Your task to perform on an android device: change the clock display to show seconds Image 0: 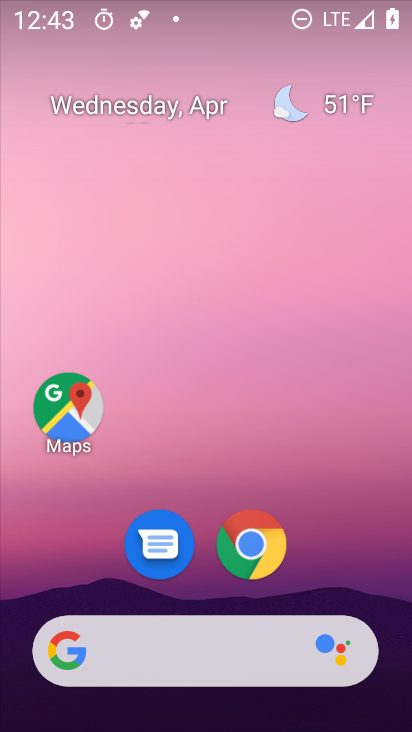
Step 0: drag from (371, 578) to (391, 156)
Your task to perform on an android device: change the clock display to show seconds Image 1: 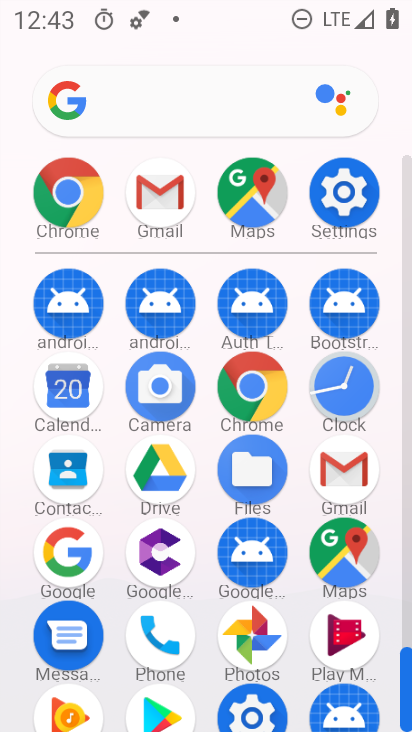
Step 1: click (328, 394)
Your task to perform on an android device: change the clock display to show seconds Image 2: 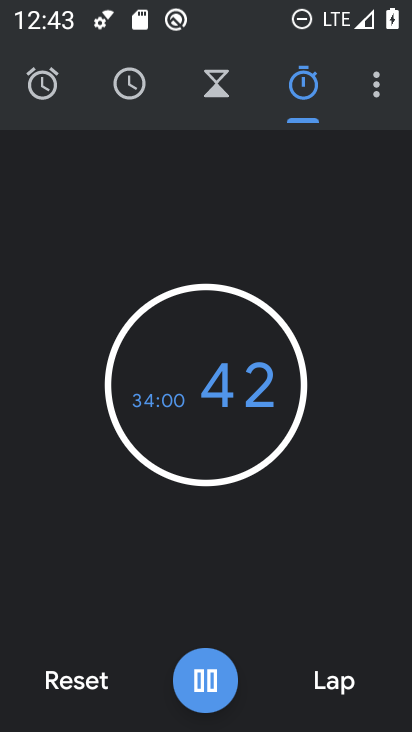
Step 2: click (382, 91)
Your task to perform on an android device: change the clock display to show seconds Image 3: 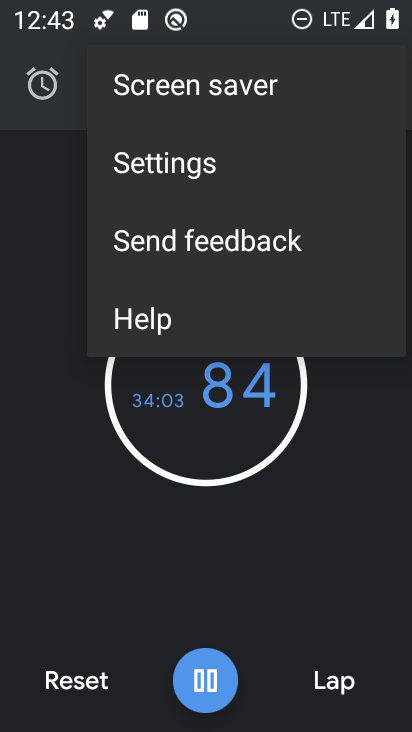
Step 3: click (203, 176)
Your task to perform on an android device: change the clock display to show seconds Image 4: 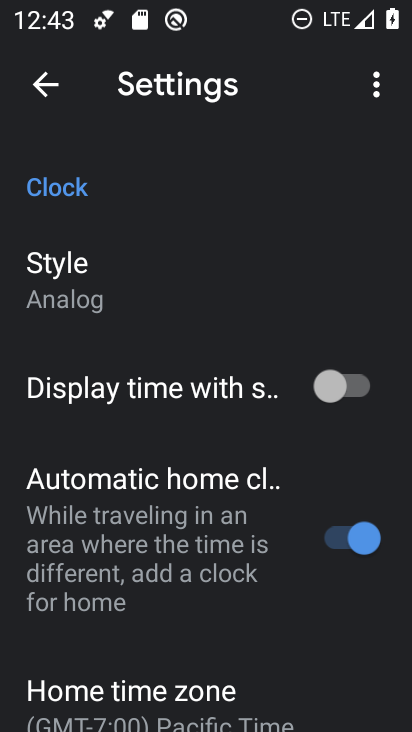
Step 4: drag from (295, 616) to (300, 423)
Your task to perform on an android device: change the clock display to show seconds Image 5: 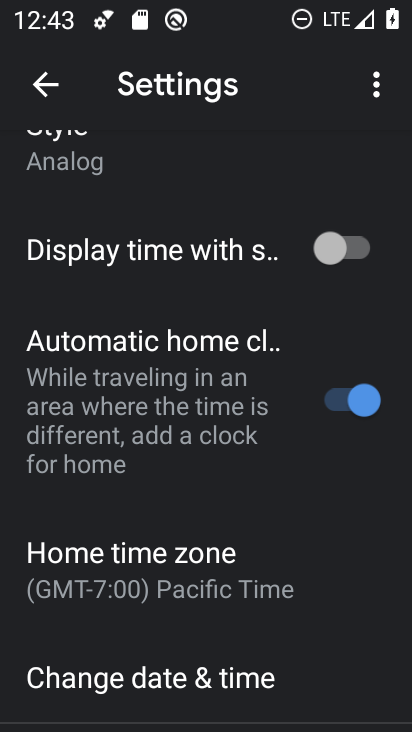
Step 5: drag from (325, 639) to (315, 470)
Your task to perform on an android device: change the clock display to show seconds Image 6: 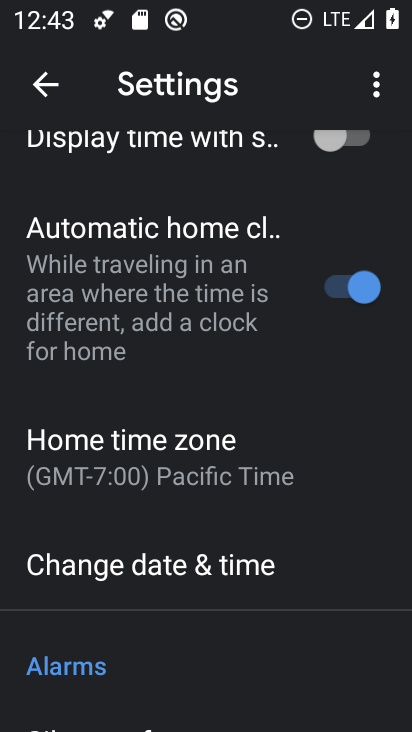
Step 6: drag from (337, 634) to (335, 482)
Your task to perform on an android device: change the clock display to show seconds Image 7: 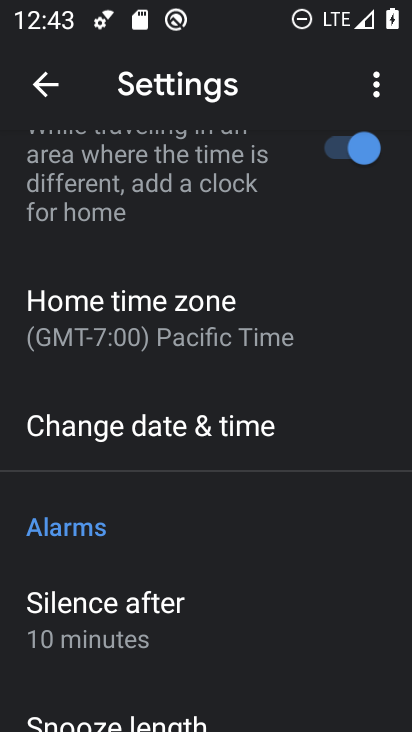
Step 7: drag from (334, 618) to (354, 497)
Your task to perform on an android device: change the clock display to show seconds Image 8: 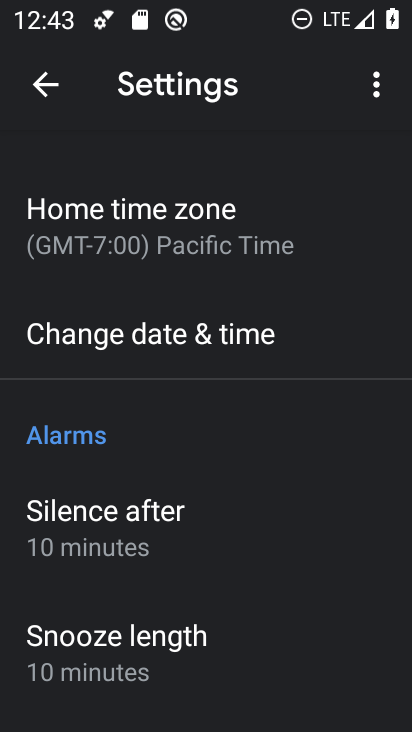
Step 8: drag from (338, 633) to (342, 519)
Your task to perform on an android device: change the clock display to show seconds Image 9: 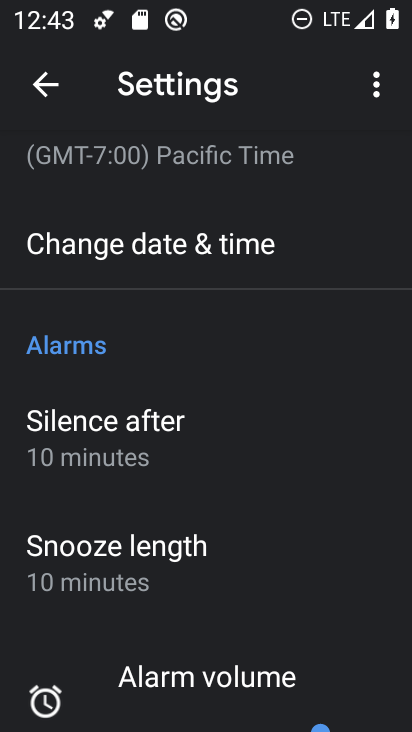
Step 9: drag from (339, 658) to (351, 520)
Your task to perform on an android device: change the clock display to show seconds Image 10: 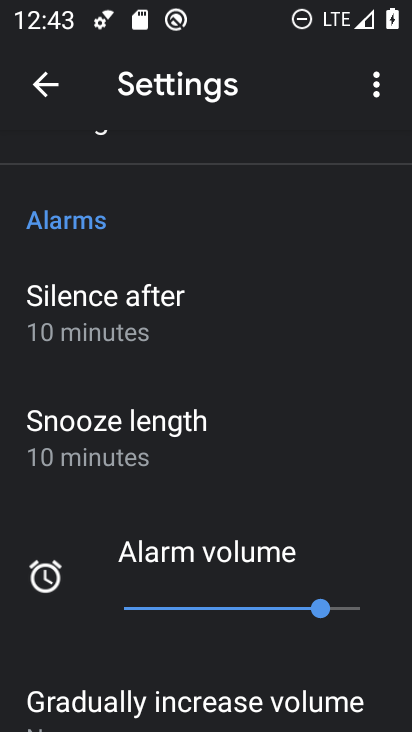
Step 10: drag from (371, 652) to (373, 503)
Your task to perform on an android device: change the clock display to show seconds Image 11: 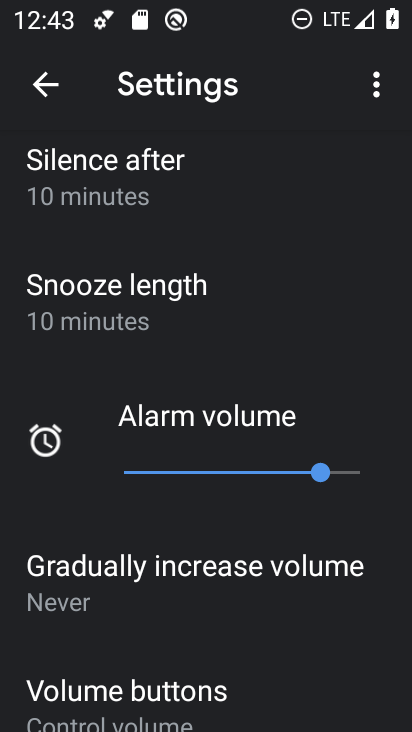
Step 11: drag from (380, 649) to (375, 491)
Your task to perform on an android device: change the clock display to show seconds Image 12: 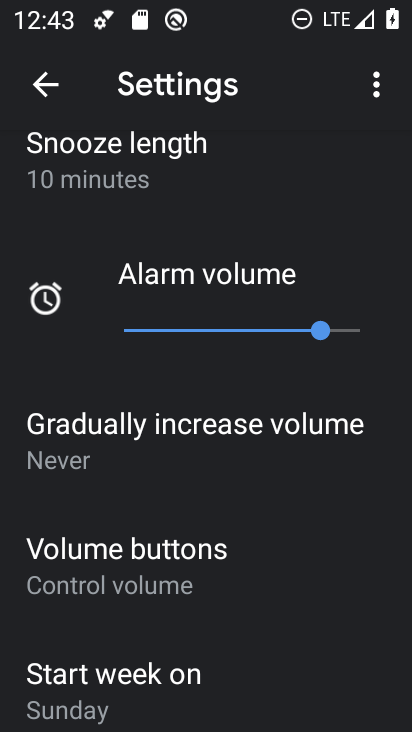
Step 12: drag from (364, 634) to (361, 475)
Your task to perform on an android device: change the clock display to show seconds Image 13: 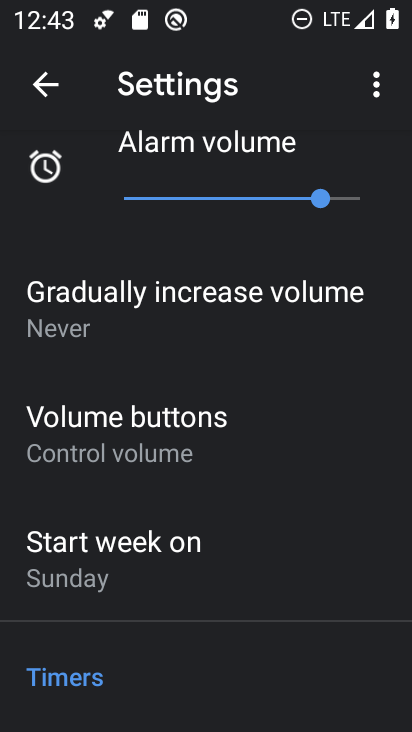
Step 13: drag from (351, 635) to (352, 449)
Your task to perform on an android device: change the clock display to show seconds Image 14: 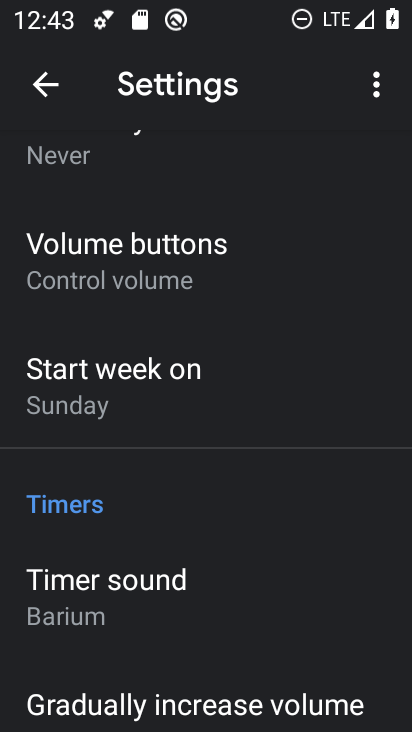
Step 14: drag from (365, 605) to (374, 372)
Your task to perform on an android device: change the clock display to show seconds Image 15: 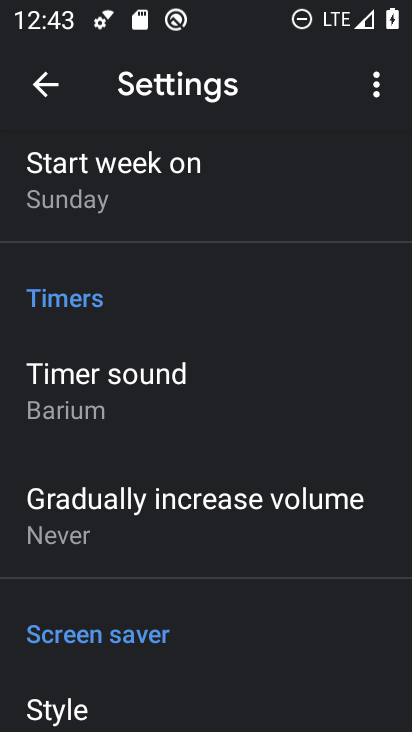
Step 15: drag from (376, 317) to (361, 569)
Your task to perform on an android device: change the clock display to show seconds Image 16: 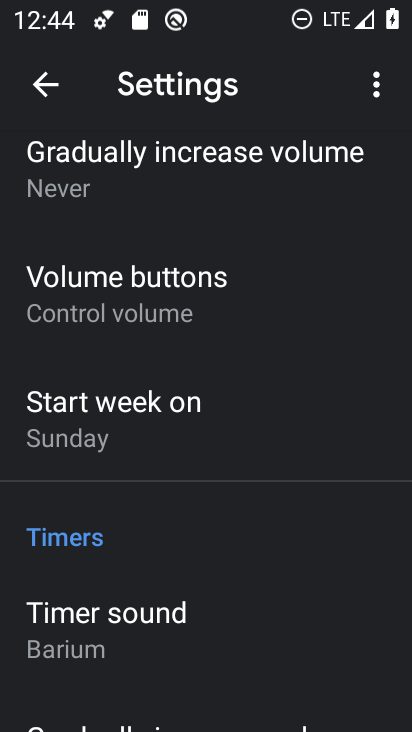
Step 16: drag from (352, 372) to (350, 533)
Your task to perform on an android device: change the clock display to show seconds Image 17: 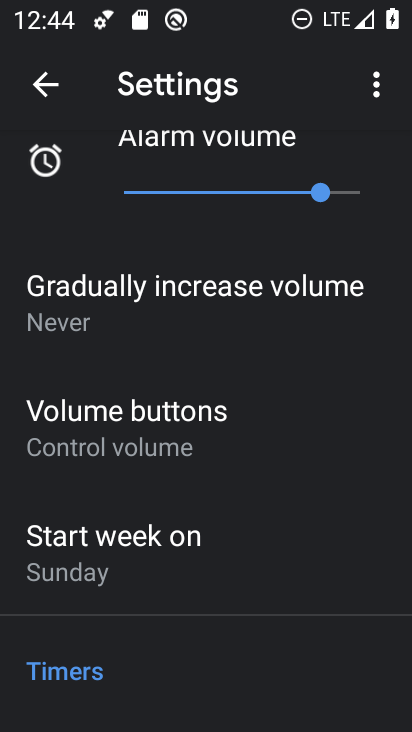
Step 17: drag from (379, 343) to (384, 528)
Your task to perform on an android device: change the clock display to show seconds Image 18: 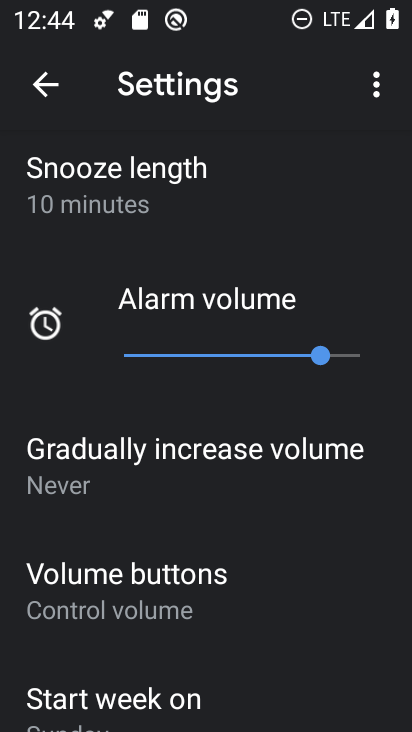
Step 18: drag from (385, 286) to (384, 503)
Your task to perform on an android device: change the clock display to show seconds Image 19: 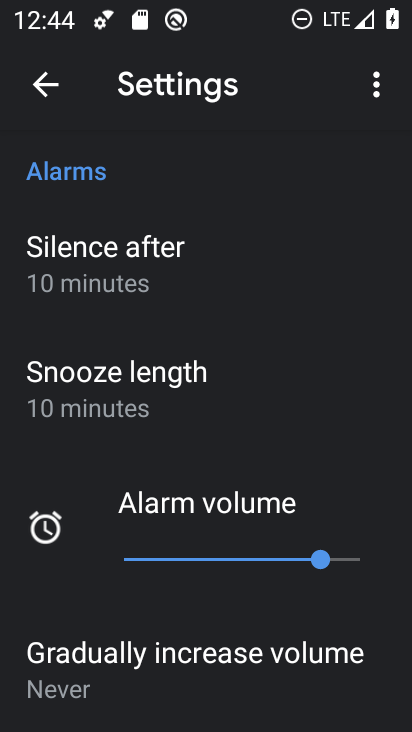
Step 19: drag from (371, 270) to (368, 487)
Your task to perform on an android device: change the clock display to show seconds Image 20: 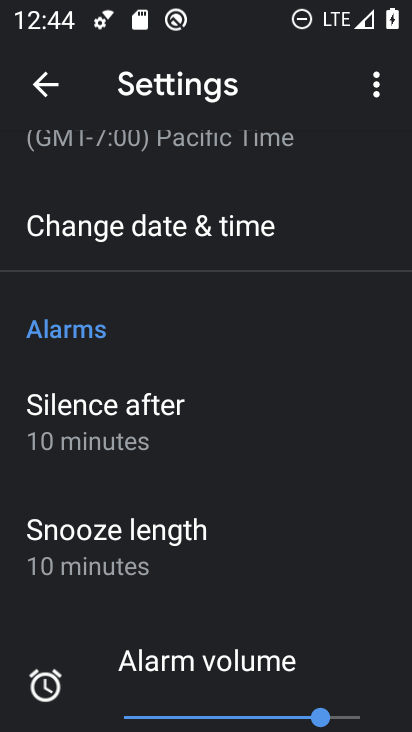
Step 20: drag from (365, 245) to (366, 483)
Your task to perform on an android device: change the clock display to show seconds Image 21: 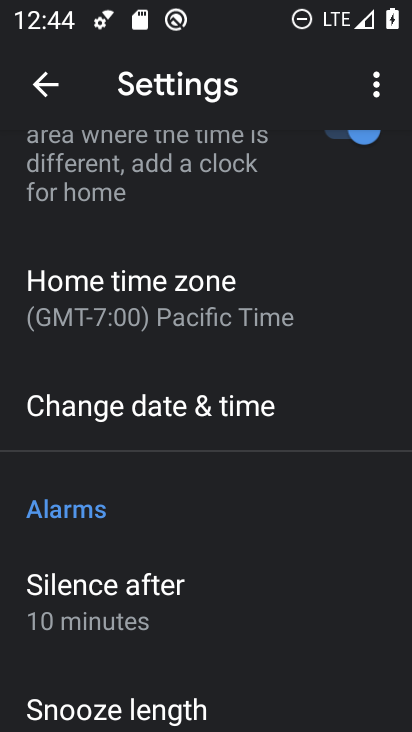
Step 21: drag from (372, 250) to (375, 481)
Your task to perform on an android device: change the clock display to show seconds Image 22: 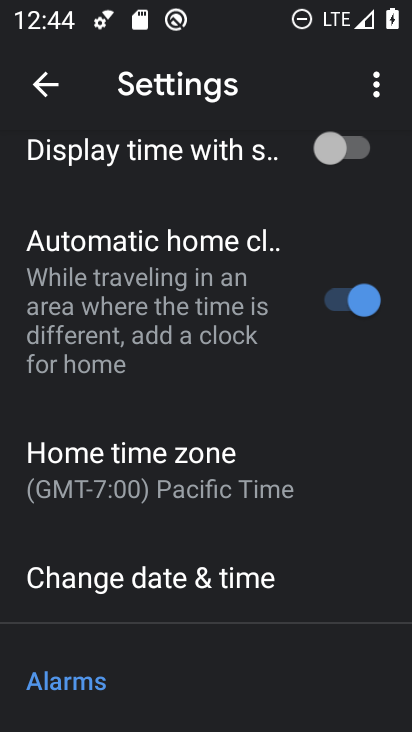
Step 22: drag from (395, 207) to (389, 422)
Your task to perform on an android device: change the clock display to show seconds Image 23: 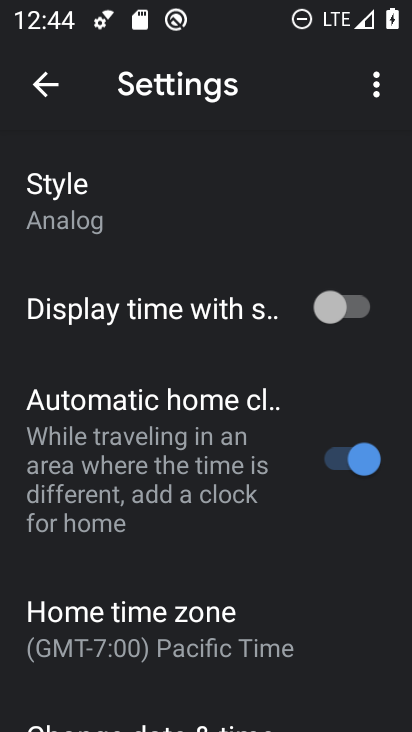
Step 23: drag from (389, 209) to (387, 399)
Your task to perform on an android device: change the clock display to show seconds Image 24: 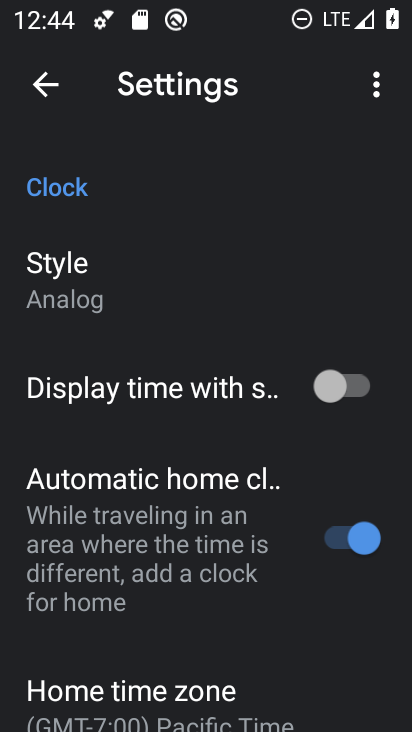
Step 24: click (342, 382)
Your task to perform on an android device: change the clock display to show seconds Image 25: 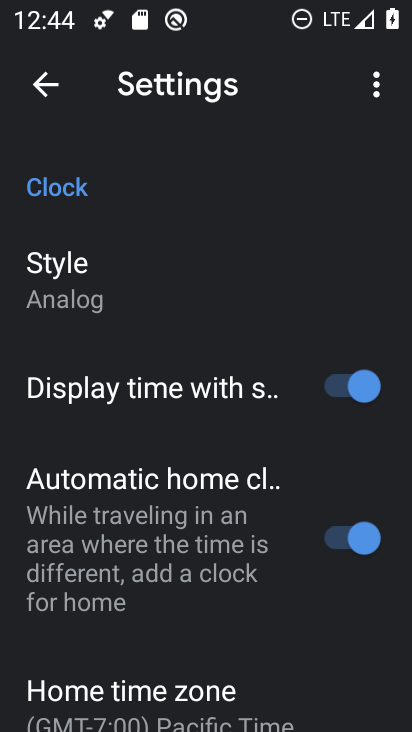
Step 25: task complete